Your task to perform on an android device: star an email in the gmail app Image 0: 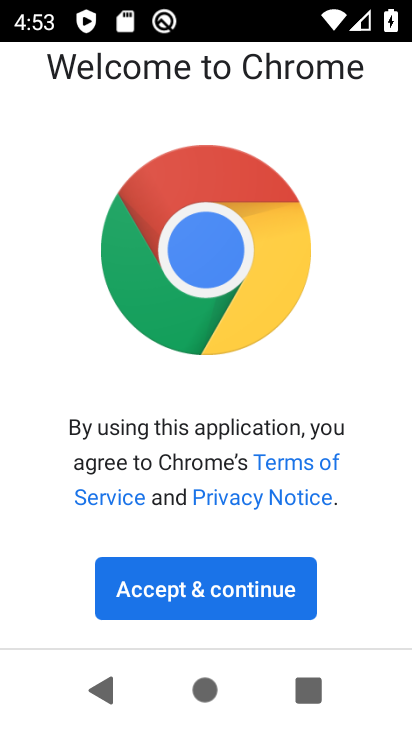
Step 0: click (239, 597)
Your task to perform on an android device: star an email in the gmail app Image 1: 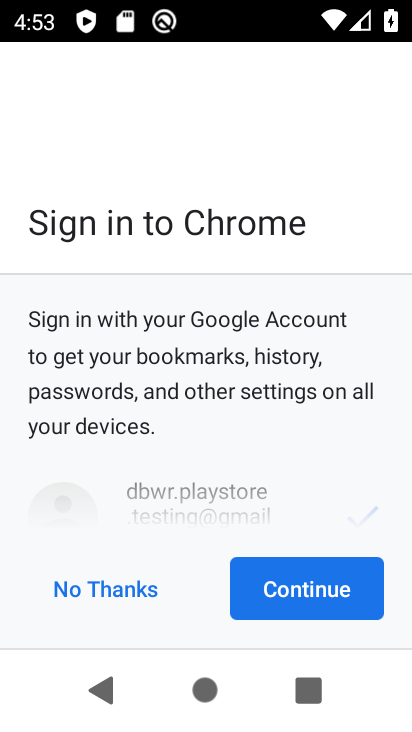
Step 1: click (260, 597)
Your task to perform on an android device: star an email in the gmail app Image 2: 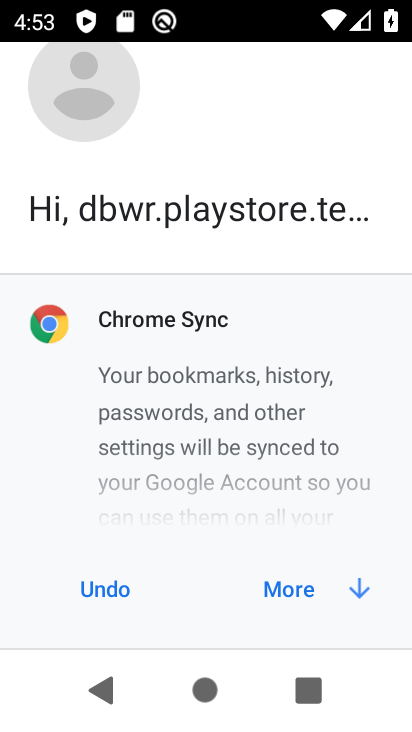
Step 2: click (299, 592)
Your task to perform on an android device: star an email in the gmail app Image 3: 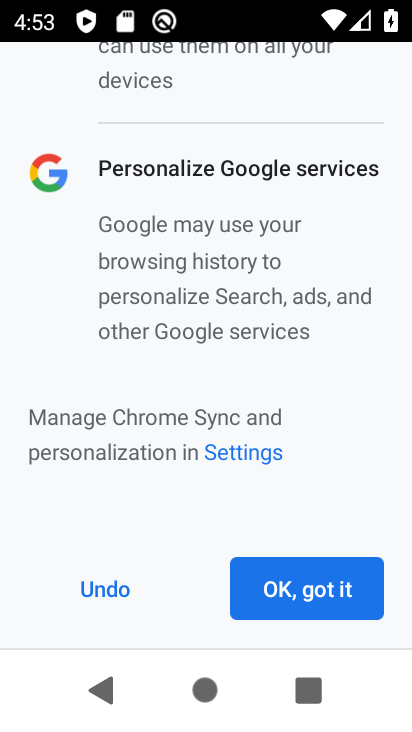
Step 3: click (299, 592)
Your task to perform on an android device: star an email in the gmail app Image 4: 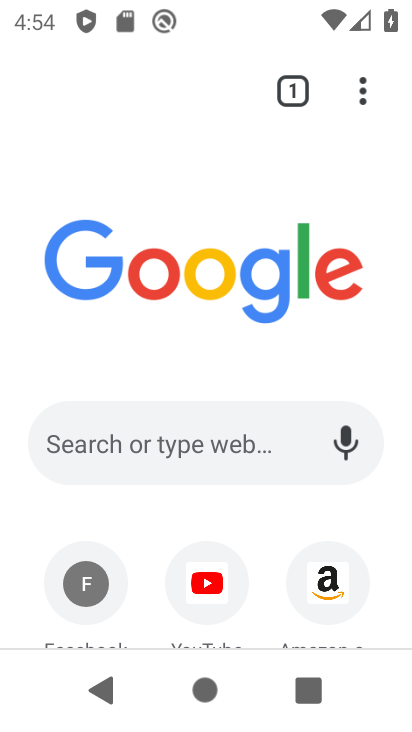
Step 4: press home button
Your task to perform on an android device: star an email in the gmail app Image 5: 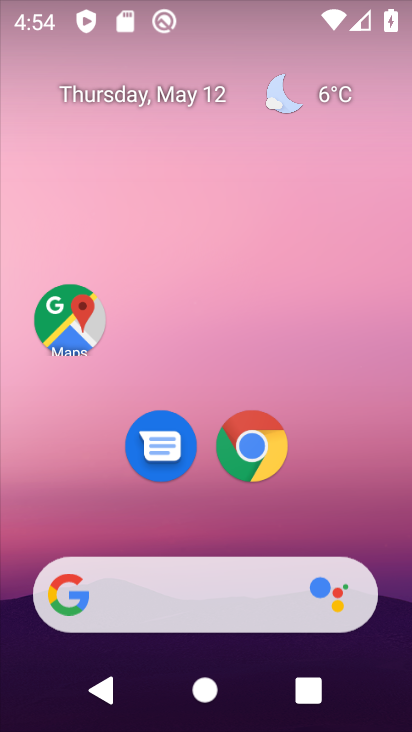
Step 5: drag from (298, 510) to (312, 146)
Your task to perform on an android device: star an email in the gmail app Image 6: 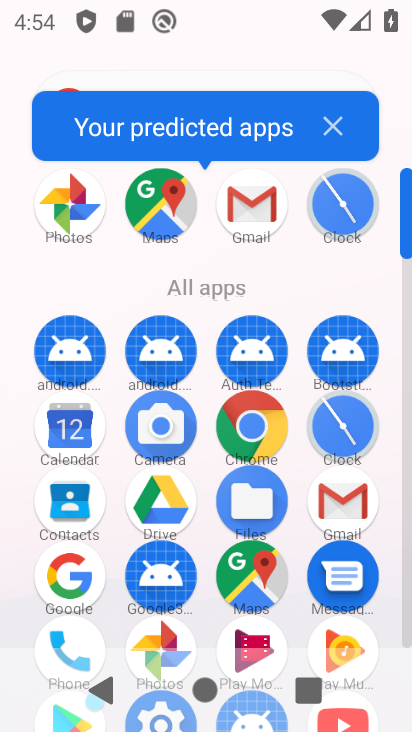
Step 6: click (344, 507)
Your task to perform on an android device: star an email in the gmail app Image 7: 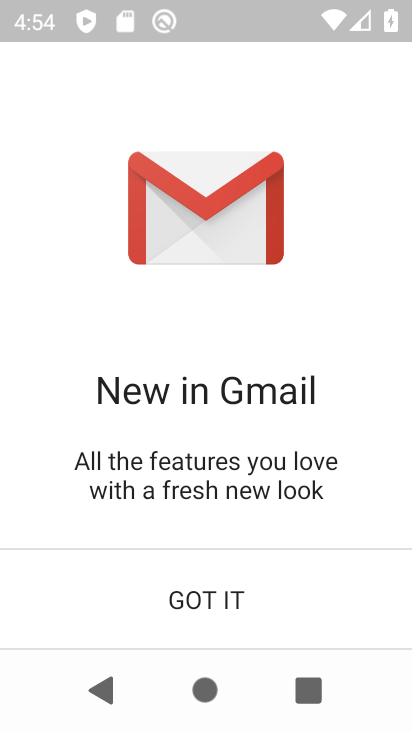
Step 7: click (211, 595)
Your task to perform on an android device: star an email in the gmail app Image 8: 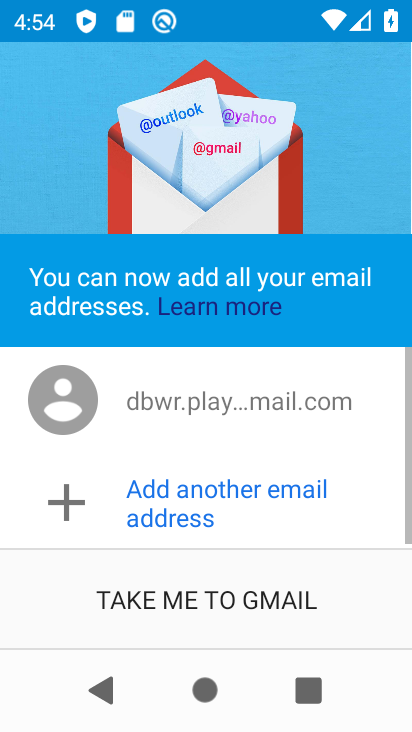
Step 8: click (211, 595)
Your task to perform on an android device: star an email in the gmail app Image 9: 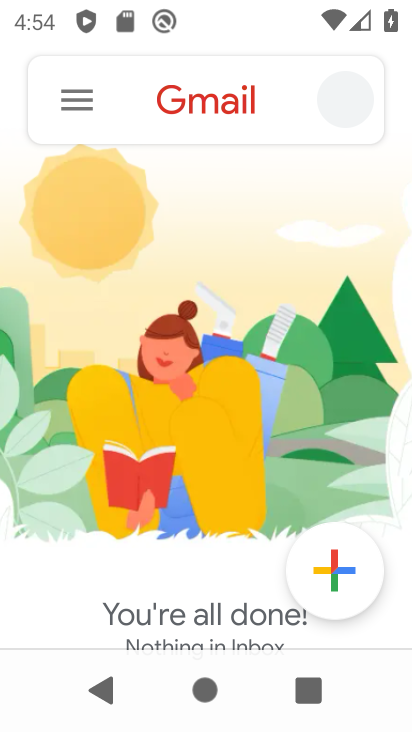
Step 9: click (84, 105)
Your task to perform on an android device: star an email in the gmail app Image 10: 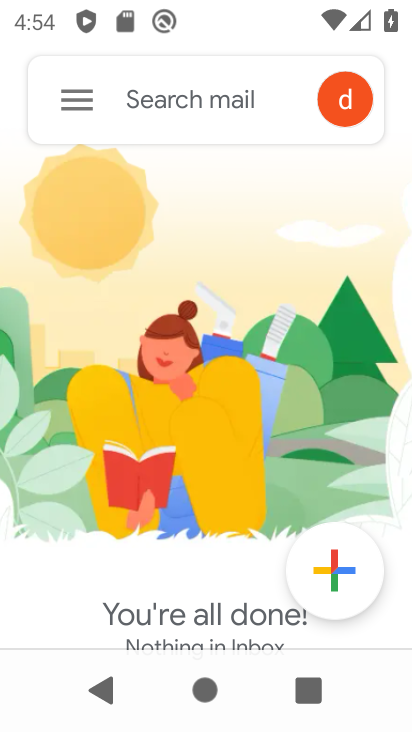
Step 10: task complete